Your task to perform on an android device: Open Yahoo.com Image 0: 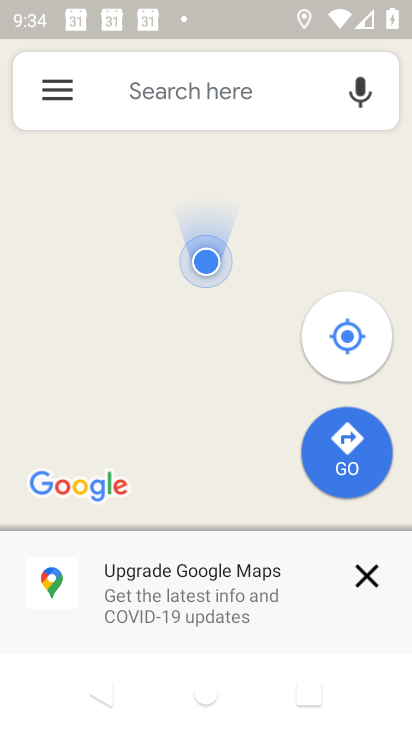
Step 0: press home button
Your task to perform on an android device: Open Yahoo.com Image 1: 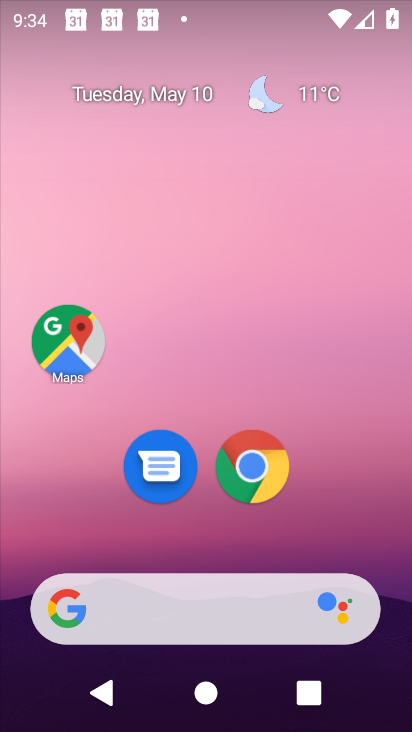
Step 1: click (257, 468)
Your task to perform on an android device: Open Yahoo.com Image 2: 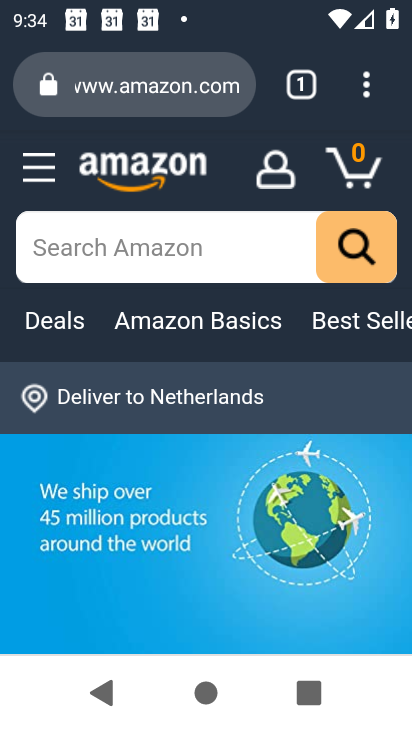
Step 2: click (171, 82)
Your task to perform on an android device: Open Yahoo.com Image 3: 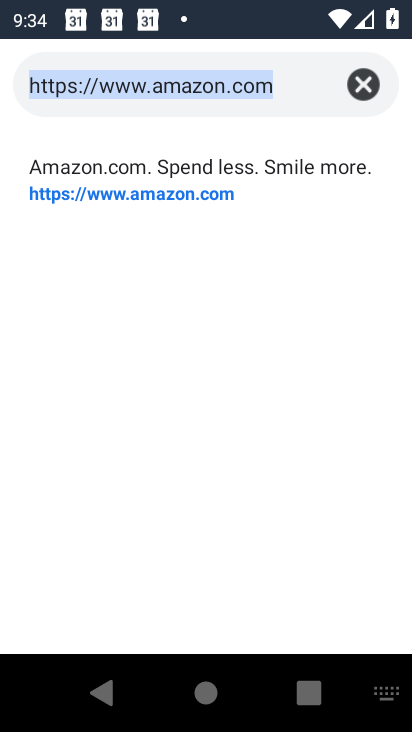
Step 3: type "yahoo.com"
Your task to perform on an android device: Open Yahoo.com Image 4: 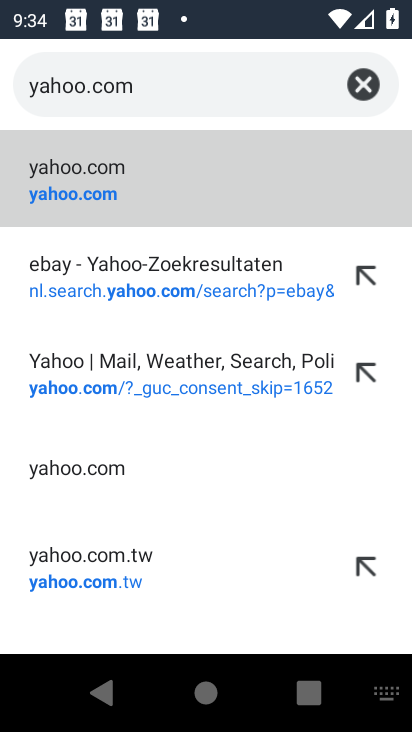
Step 4: click (85, 178)
Your task to perform on an android device: Open Yahoo.com Image 5: 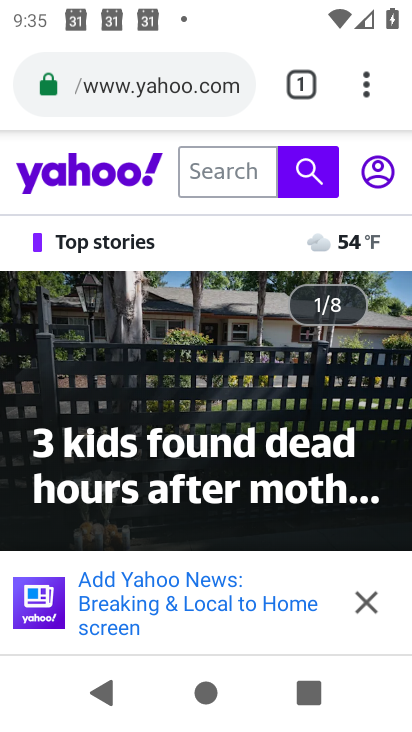
Step 5: task complete